Your task to perform on an android device: stop showing notifications on the lock screen Image 0: 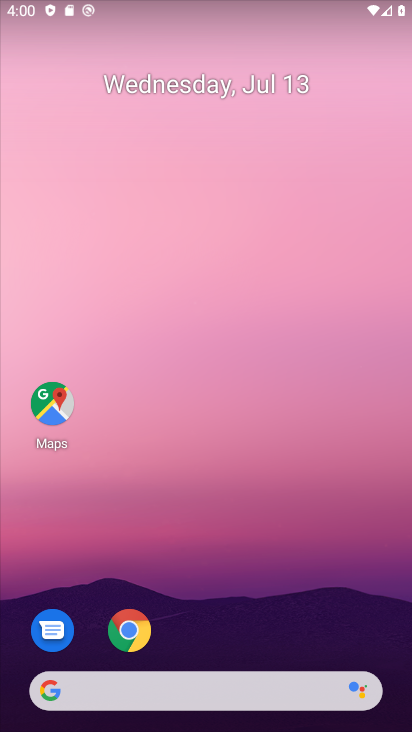
Step 0: press home button
Your task to perform on an android device: stop showing notifications on the lock screen Image 1: 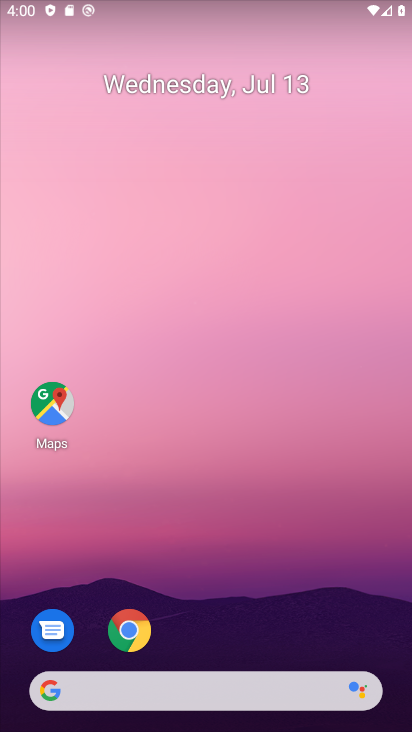
Step 1: drag from (262, 587) to (337, 67)
Your task to perform on an android device: stop showing notifications on the lock screen Image 2: 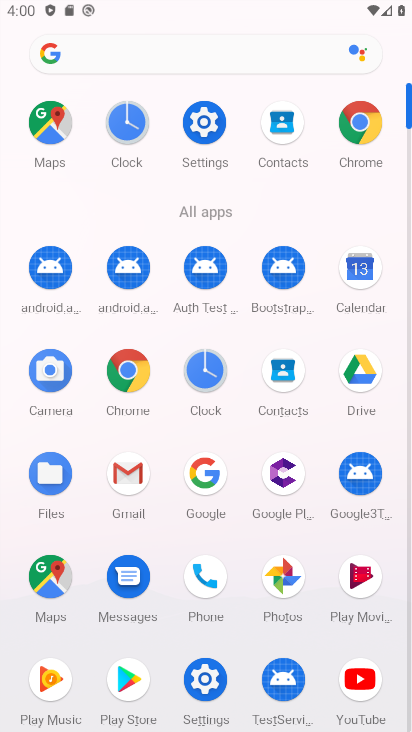
Step 2: click (212, 133)
Your task to perform on an android device: stop showing notifications on the lock screen Image 3: 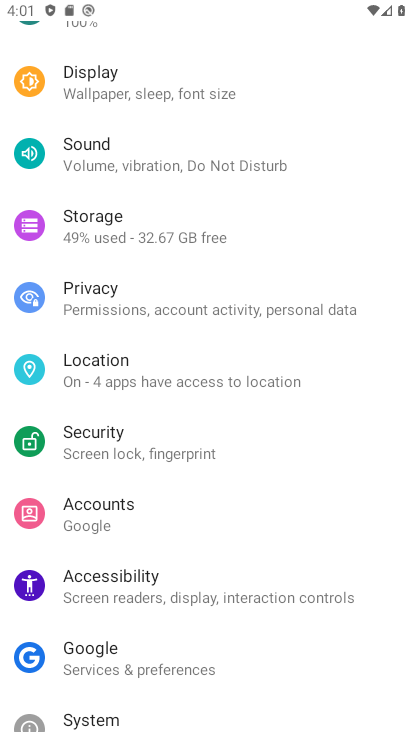
Step 3: drag from (309, 92) to (350, 554)
Your task to perform on an android device: stop showing notifications on the lock screen Image 4: 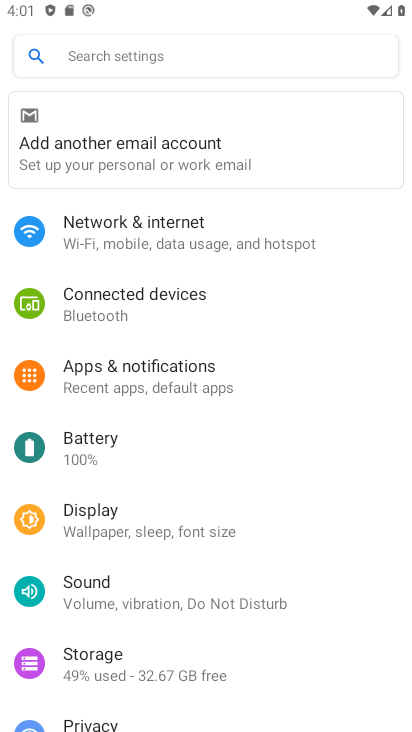
Step 4: click (144, 370)
Your task to perform on an android device: stop showing notifications on the lock screen Image 5: 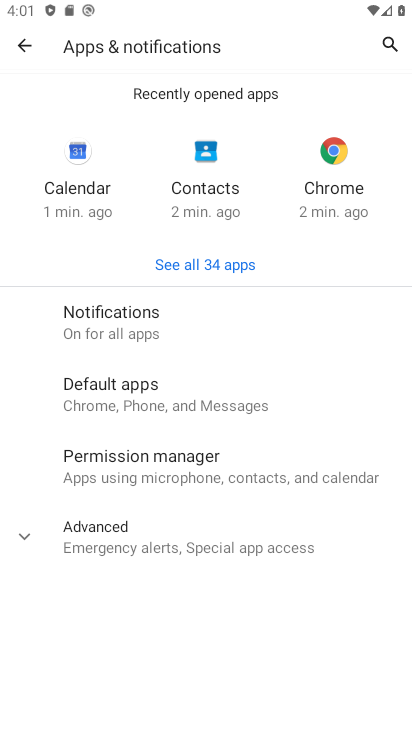
Step 5: click (107, 325)
Your task to perform on an android device: stop showing notifications on the lock screen Image 6: 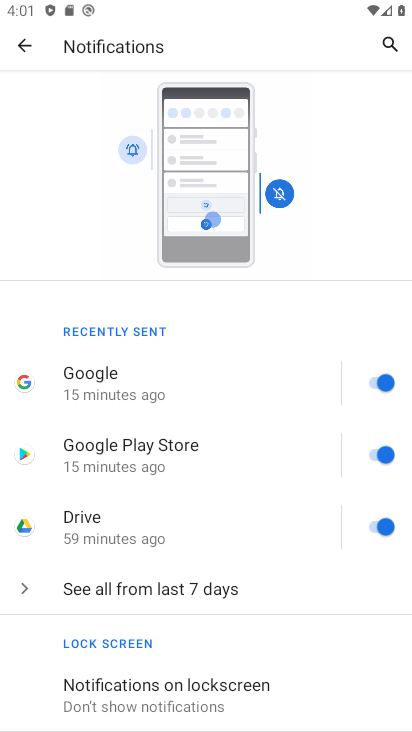
Step 6: click (167, 688)
Your task to perform on an android device: stop showing notifications on the lock screen Image 7: 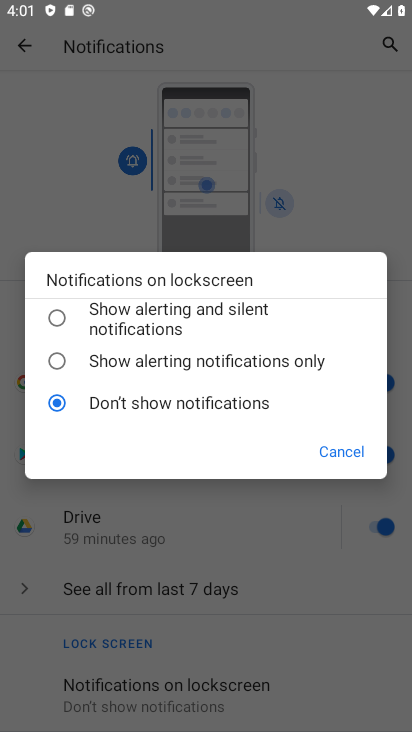
Step 7: task complete